Your task to perform on an android device: add a contact in the contacts app Image 0: 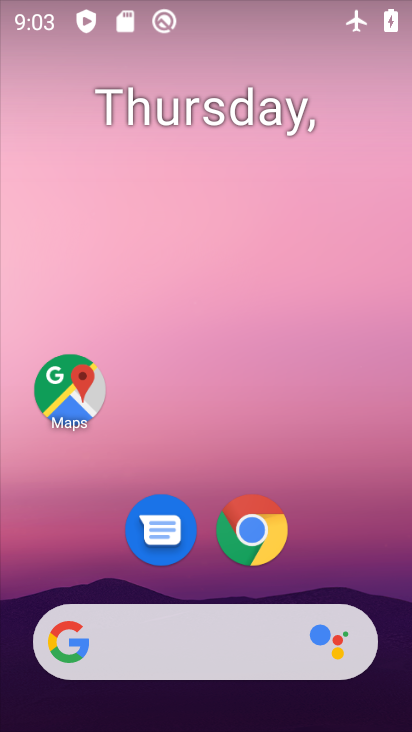
Step 0: drag from (360, 562) to (259, 15)
Your task to perform on an android device: add a contact in the contacts app Image 1: 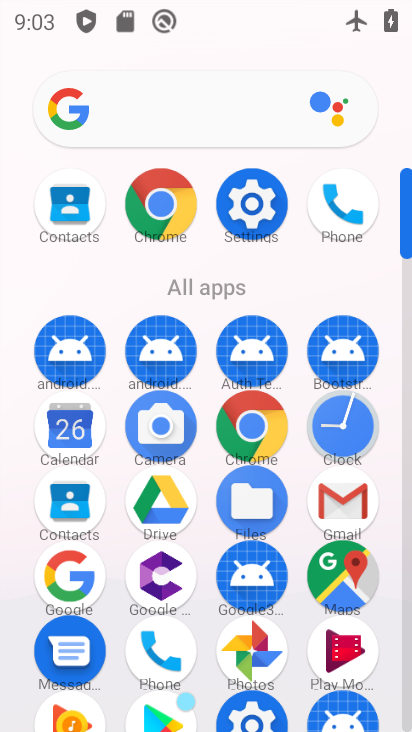
Step 1: drag from (0, 572) to (17, 269)
Your task to perform on an android device: add a contact in the contacts app Image 2: 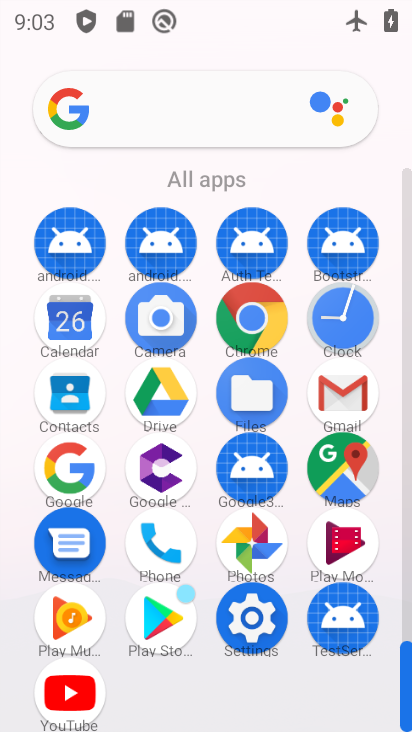
Step 2: click (67, 387)
Your task to perform on an android device: add a contact in the contacts app Image 3: 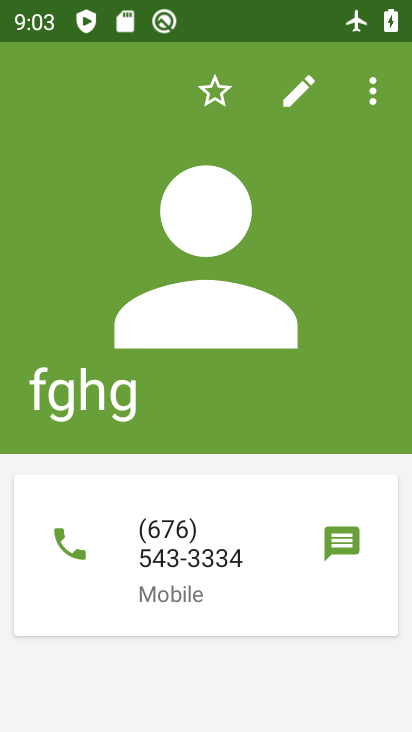
Step 3: press back button
Your task to perform on an android device: add a contact in the contacts app Image 4: 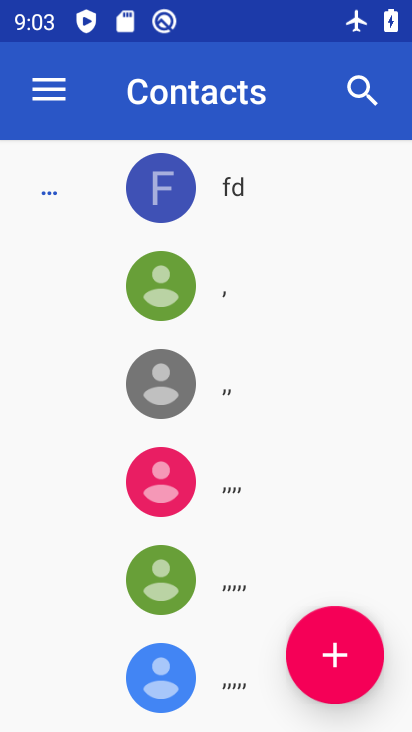
Step 4: click (318, 642)
Your task to perform on an android device: add a contact in the contacts app Image 5: 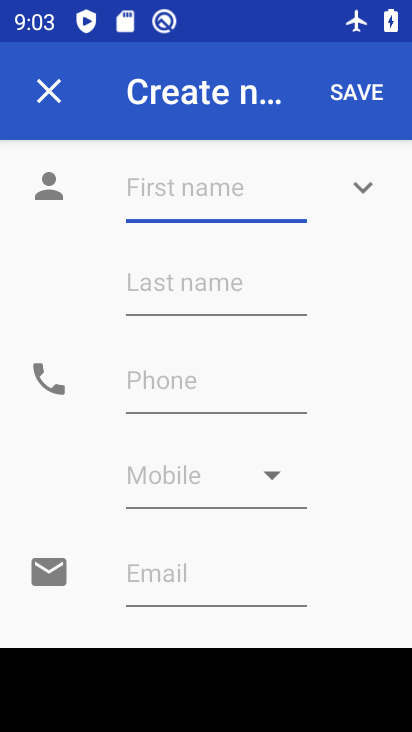
Step 5: type "DFGH"
Your task to perform on an android device: add a contact in the contacts app Image 6: 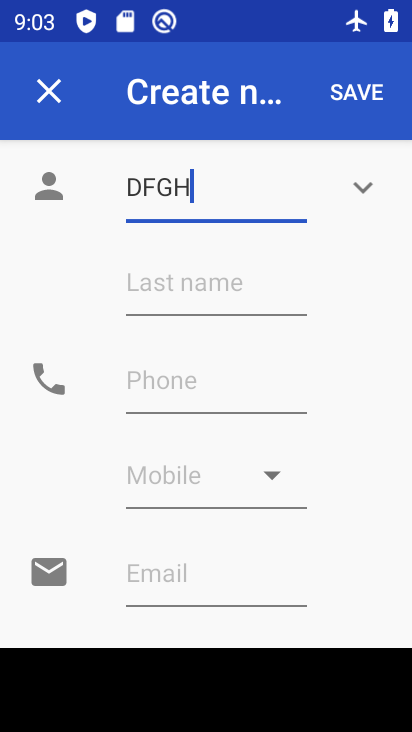
Step 6: type ""
Your task to perform on an android device: add a contact in the contacts app Image 7: 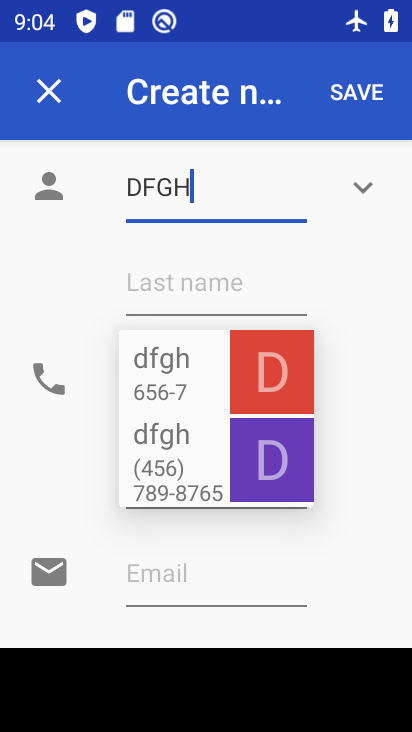
Step 7: click (177, 438)
Your task to perform on an android device: add a contact in the contacts app Image 8: 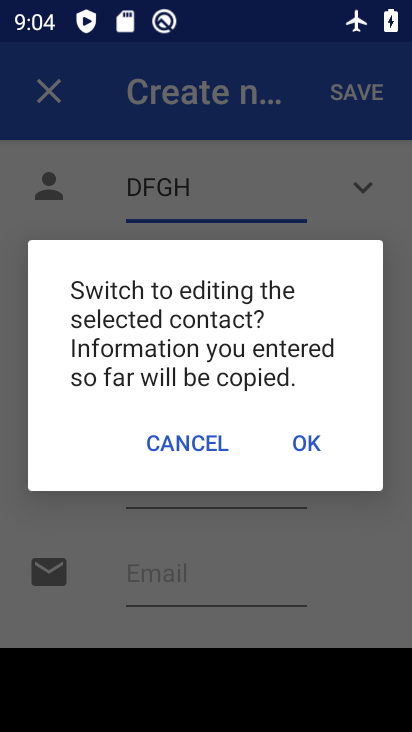
Step 8: click (303, 440)
Your task to perform on an android device: add a contact in the contacts app Image 9: 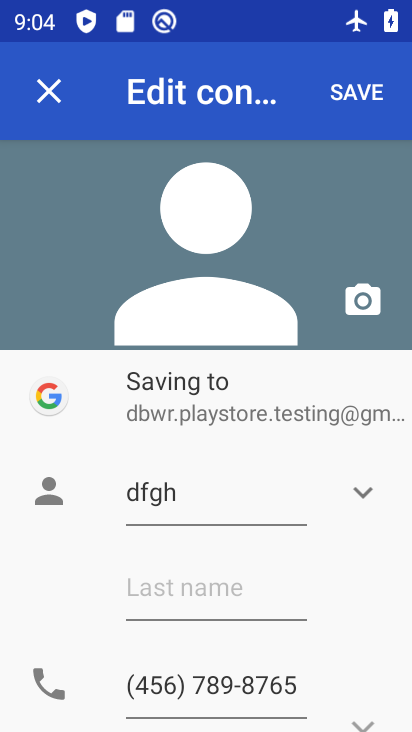
Step 9: click (334, 90)
Your task to perform on an android device: add a contact in the contacts app Image 10: 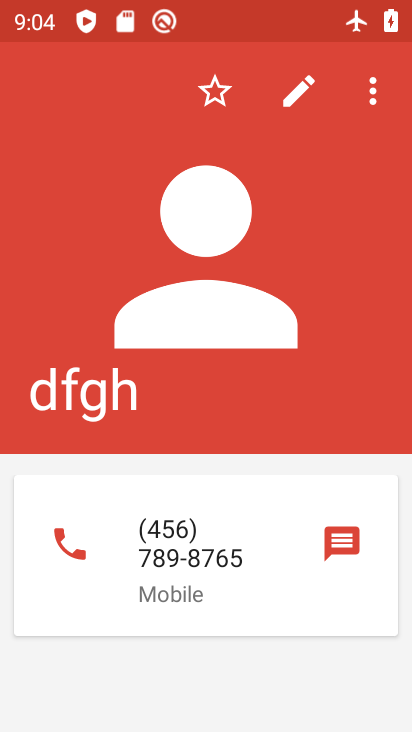
Step 10: task complete